Your task to perform on an android device: Open calendar and show me the second week of next month Image 0: 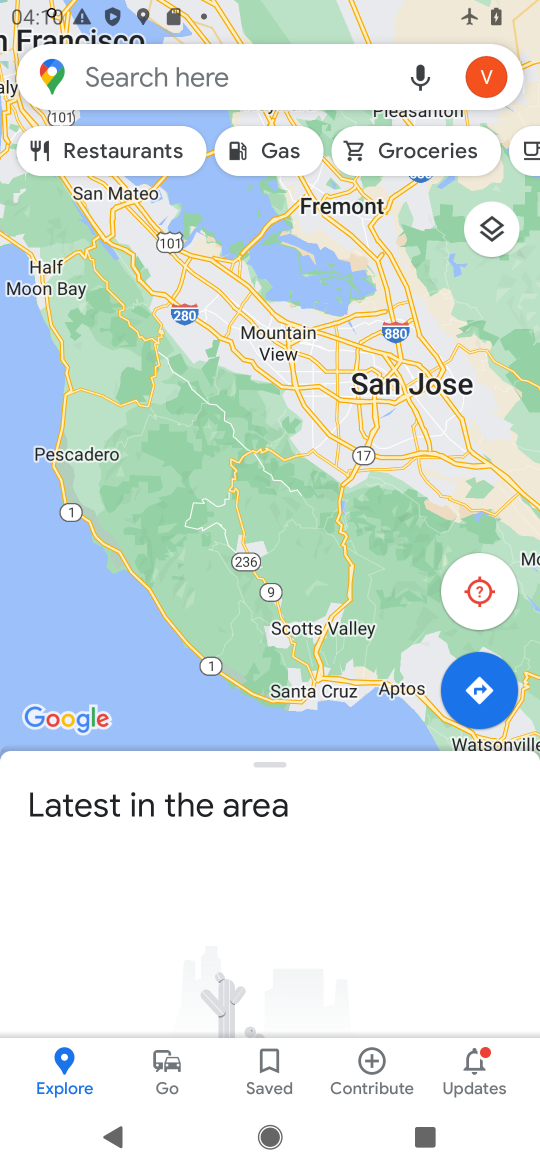
Step 0: press home button
Your task to perform on an android device: Open calendar and show me the second week of next month Image 1: 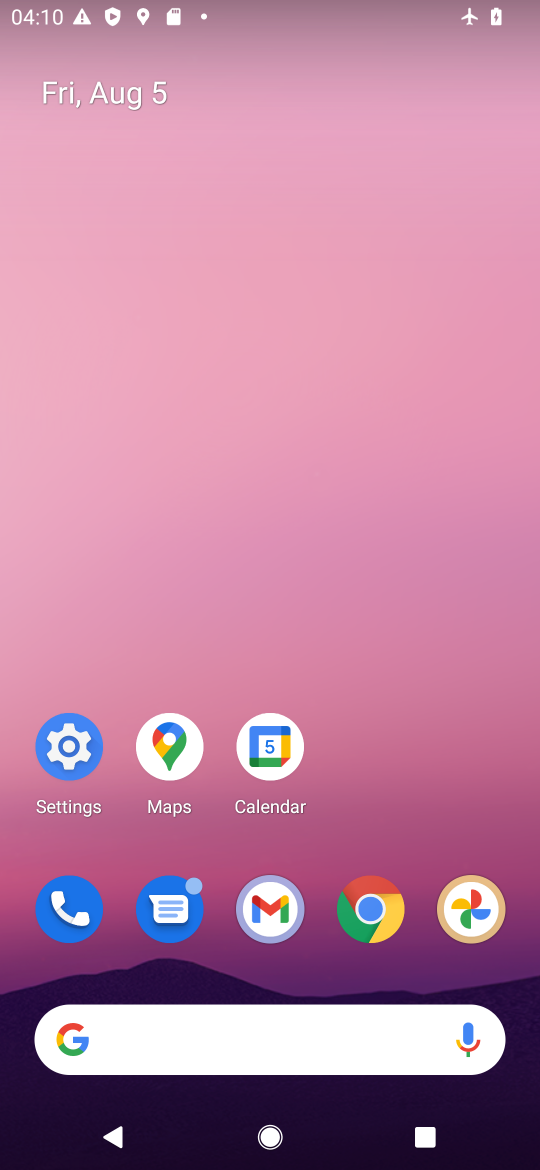
Step 1: click (268, 739)
Your task to perform on an android device: Open calendar and show me the second week of next month Image 2: 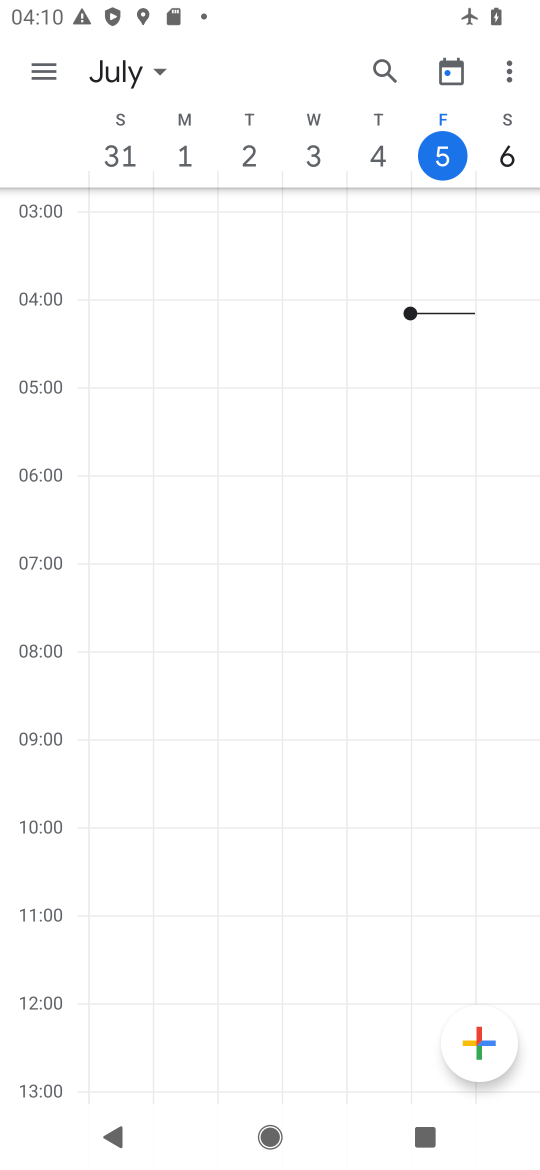
Step 2: click (153, 70)
Your task to perform on an android device: Open calendar and show me the second week of next month Image 3: 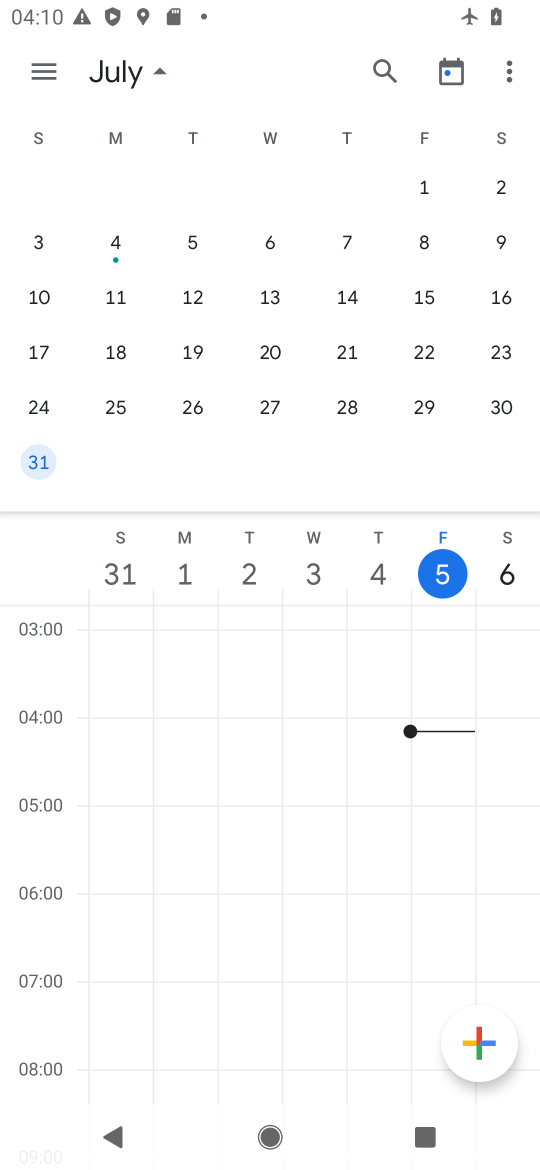
Step 3: drag from (434, 347) to (131, 197)
Your task to perform on an android device: Open calendar and show me the second week of next month Image 4: 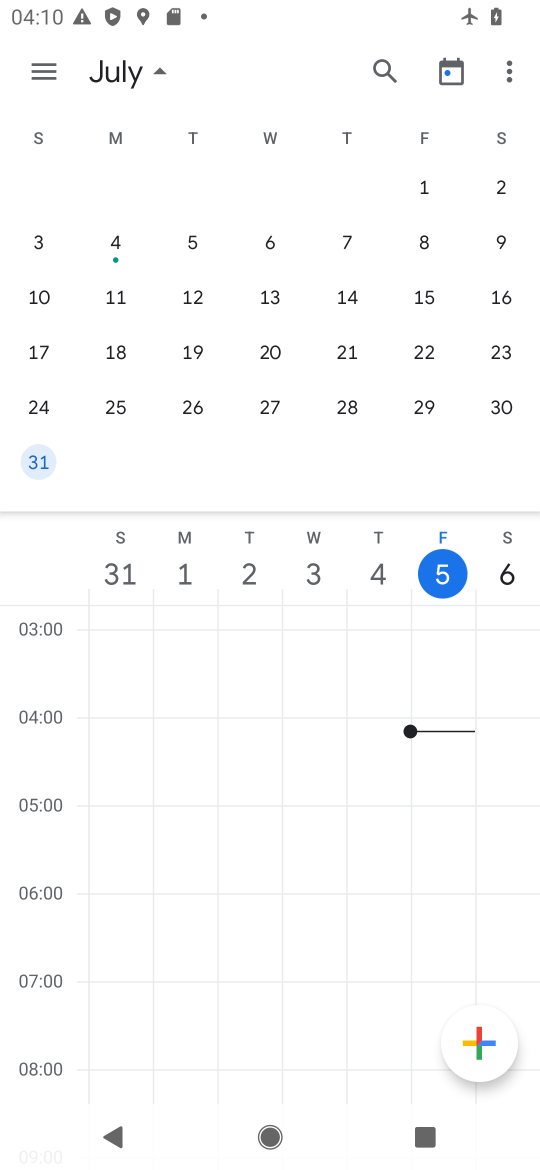
Step 4: click (489, 323)
Your task to perform on an android device: Open calendar and show me the second week of next month Image 5: 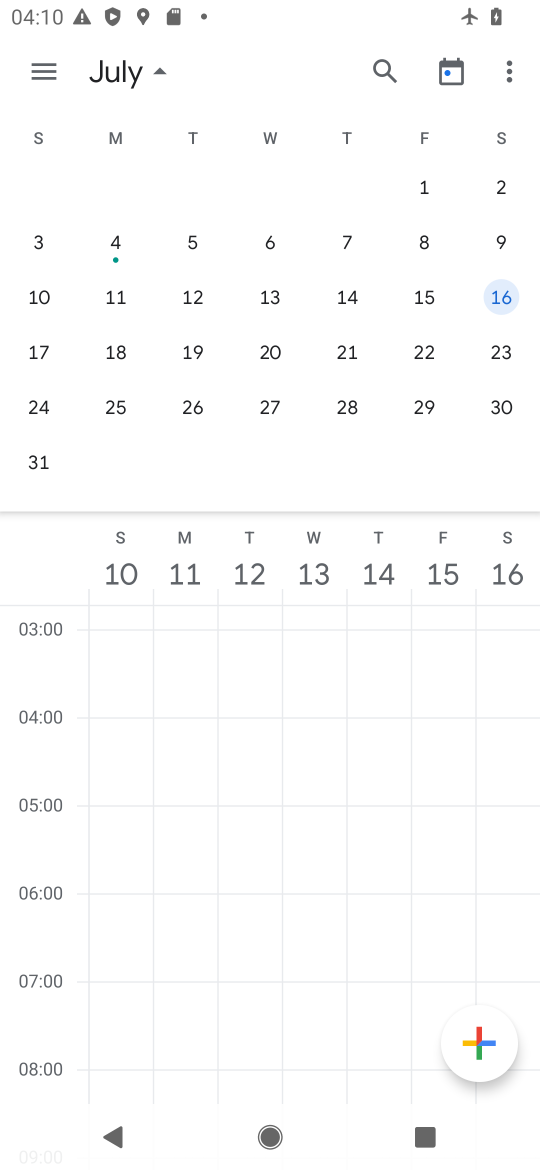
Step 5: drag from (489, 323) to (18, 270)
Your task to perform on an android device: Open calendar and show me the second week of next month Image 6: 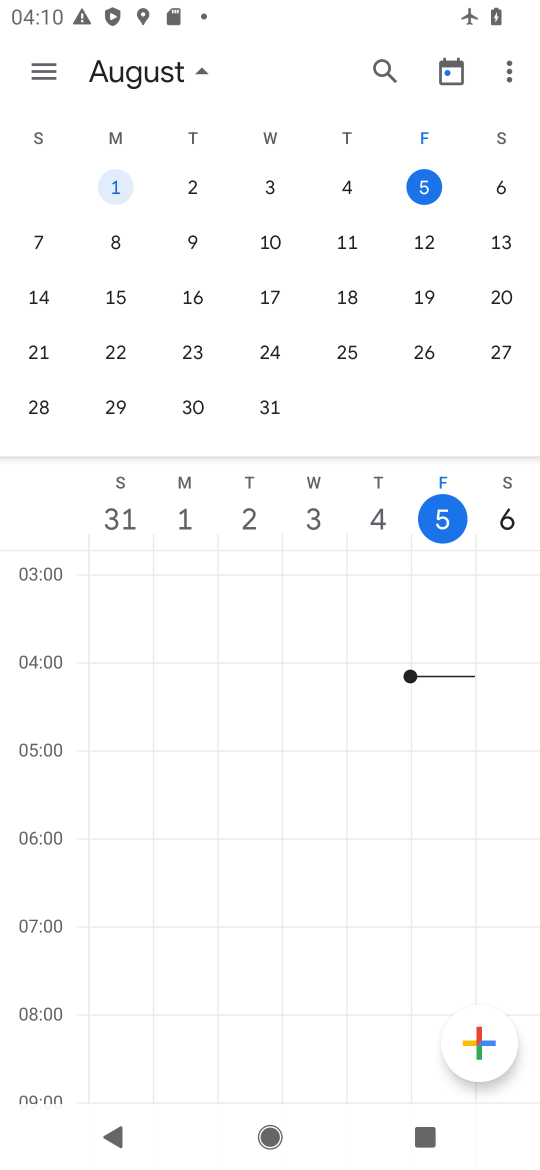
Step 6: drag from (476, 306) to (65, 243)
Your task to perform on an android device: Open calendar and show me the second week of next month Image 7: 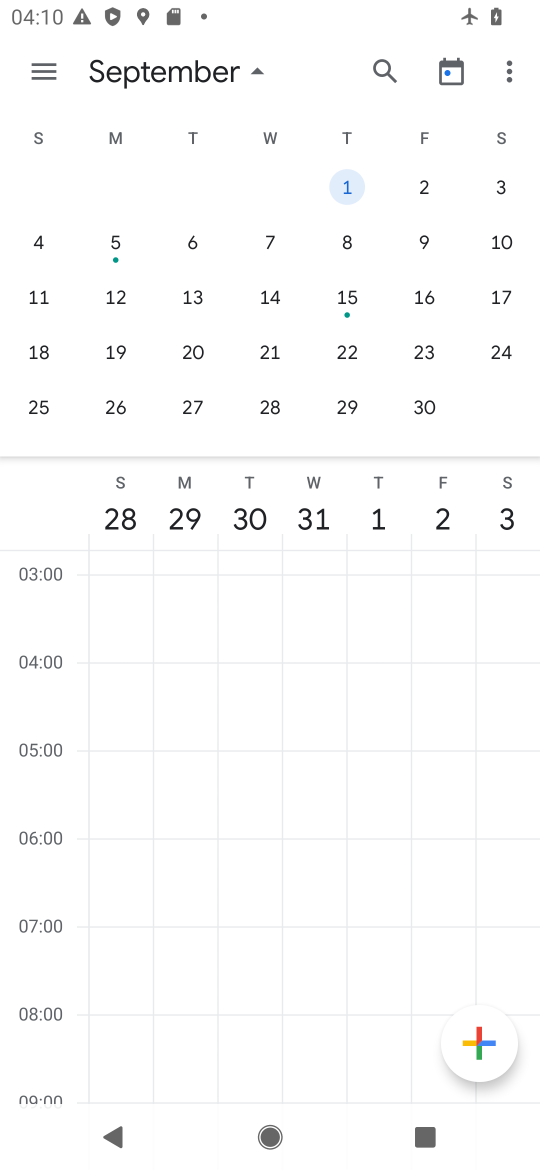
Step 7: click (196, 239)
Your task to perform on an android device: Open calendar and show me the second week of next month Image 8: 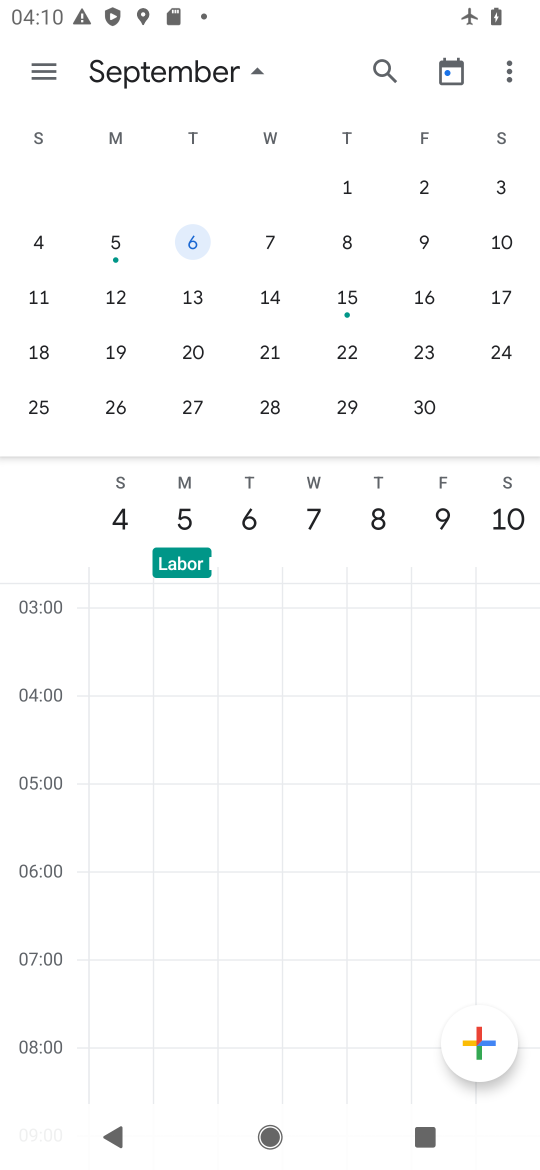
Step 8: task complete